Your task to perform on an android device: toggle priority inbox in the gmail app Image 0: 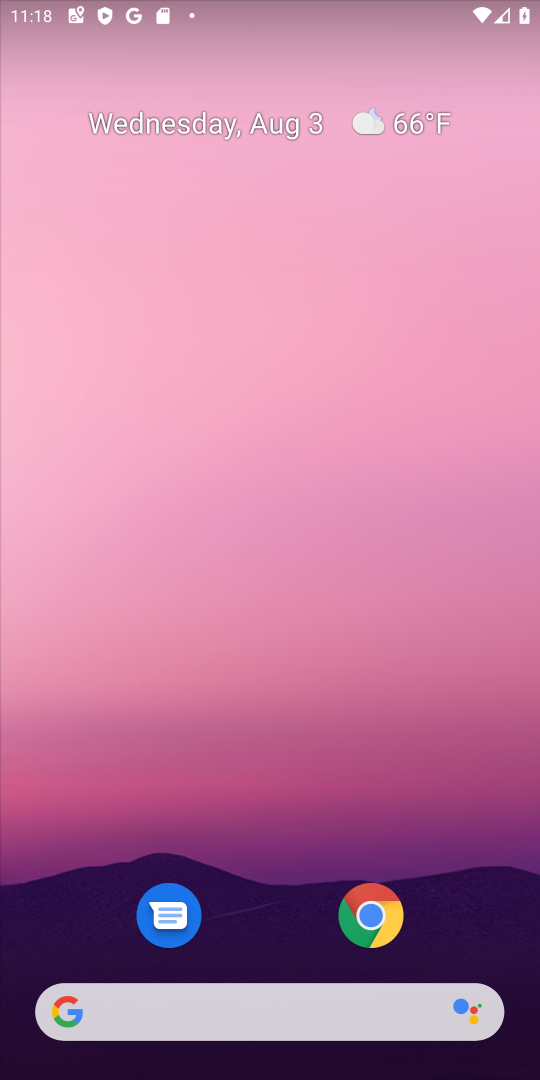
Step 0: press home button
Your task to perform on an android device: toggle priority inbox in the gmail app Image 1: 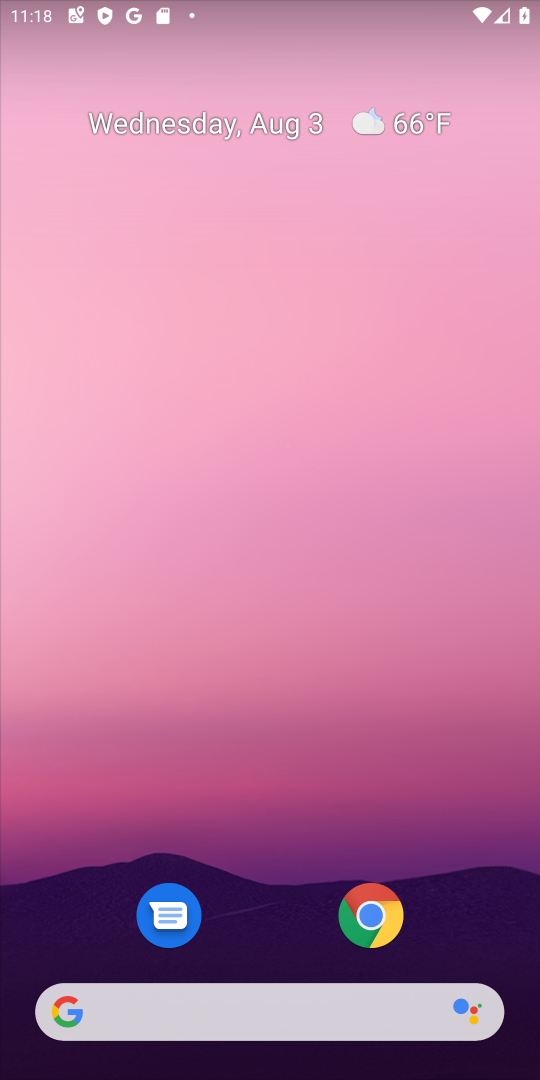
Step 1: drag from (282, 908) to (244, 129)
Your task to perform on an android device: toggle priority inbox in the gmail app Image 2: 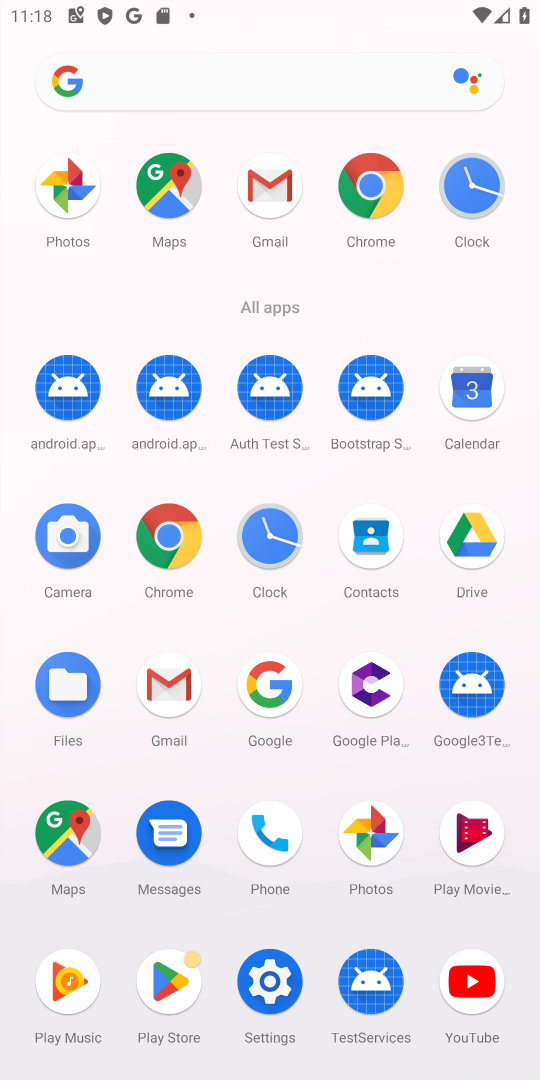
Step 2: click (201, 699)
Your task to perform on an android device: toggle priority inbox in the gmail app Image 3: 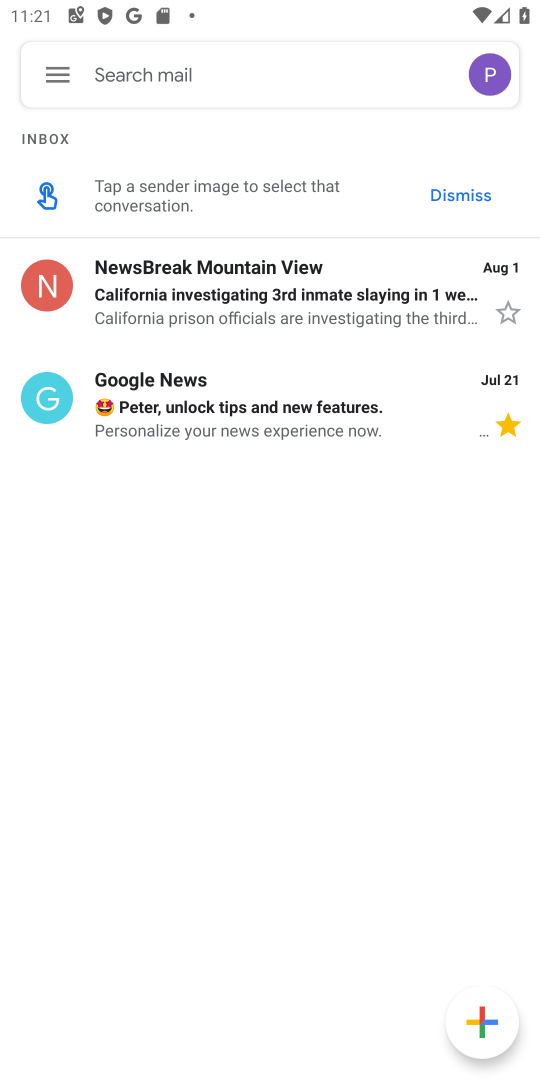
Step 3: click (52, 81)
Your task to perform on an android device: toggle priority inbox in the gmail app Image 4: 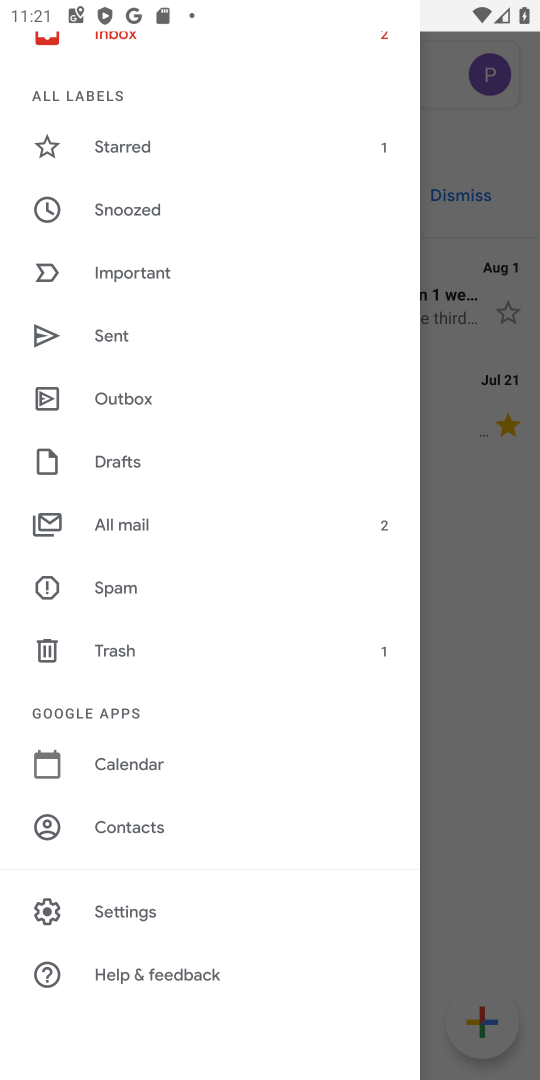
Step 4: click (113, 899)
Your task to perform on an android device: toggle priority inbox in the gmail app Image 5: 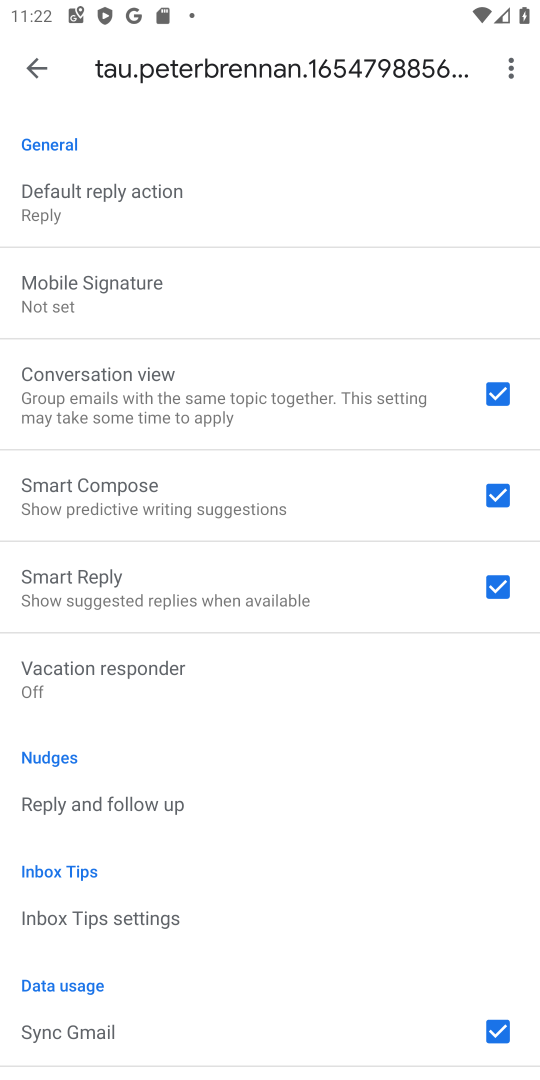
Step 5: drag from (188, 934) to (137, 283)
Your task to perform on an android device: toggle priority inbox in the gmail app Image 6: 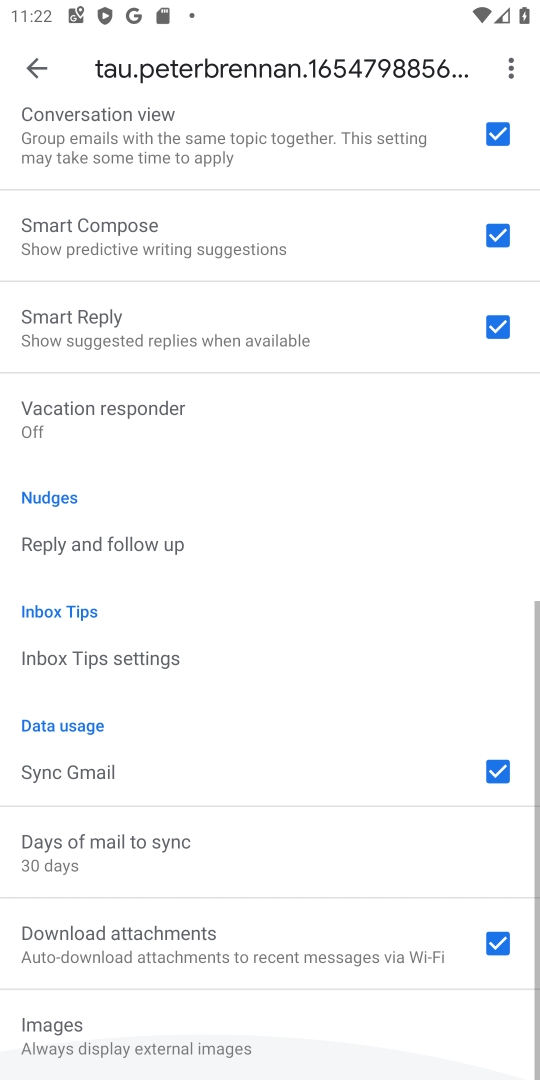
Step 6: drag from (149, 665) to (158, 125)
Your task to perform on an android device: toggle priority inbox in the gmail app Image 7: 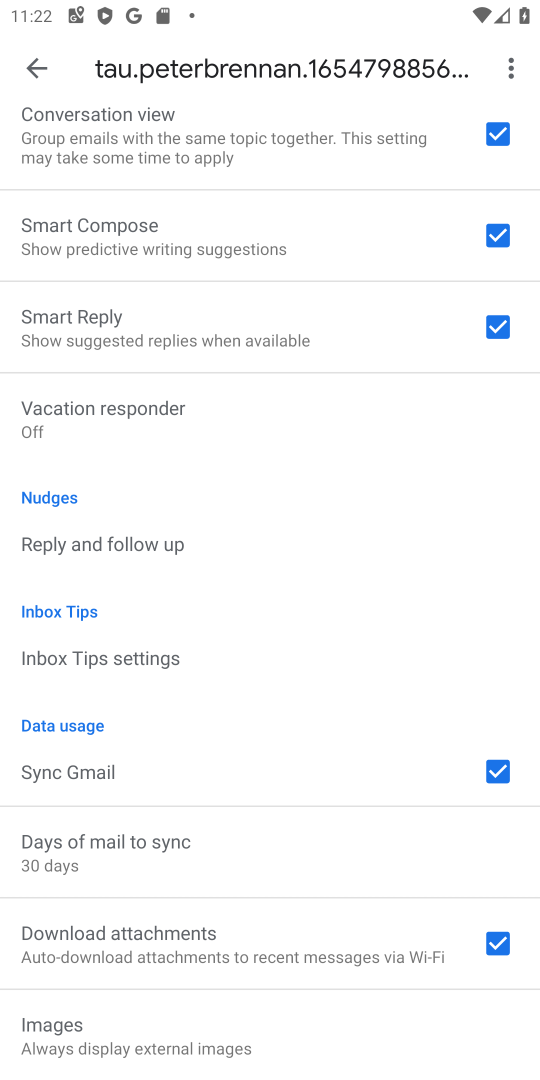
Step 7: drag from (116, 295) to (186, 1065)
Your task to perform on an android device: toggle priority inbox in the gmail app Image 8: 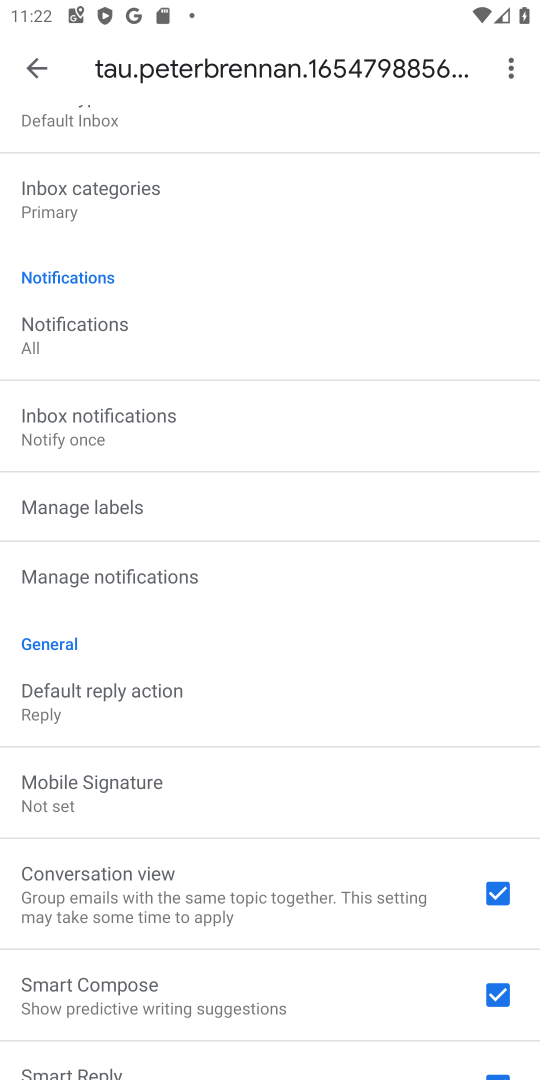
Step 8: drag from (78, 231) to (119, 778)
Your task to perform on an android device: toggle priority inbox in the gmail app Image 9: 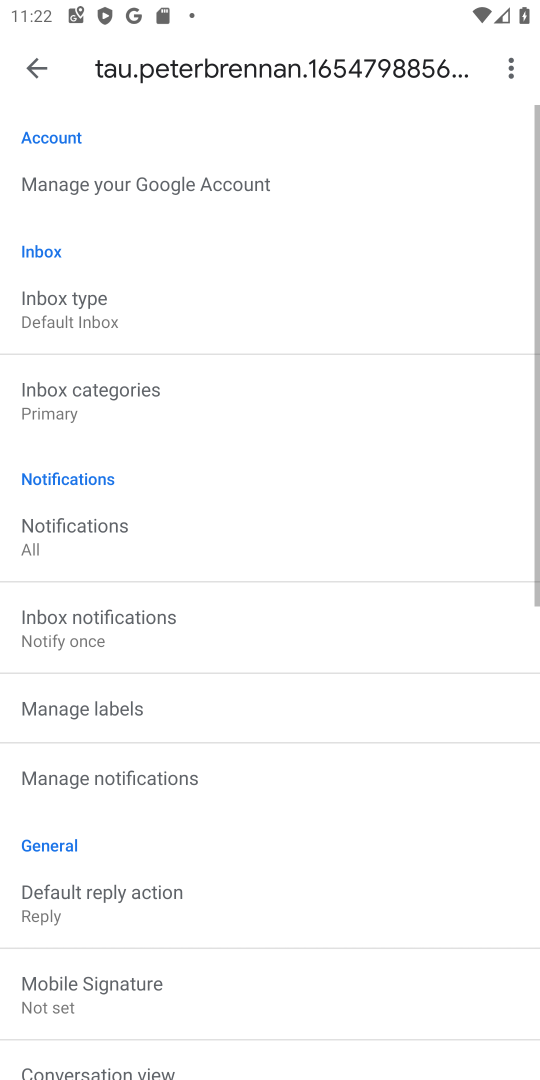
Step 9: click (67, 314)
Your task to perform on an android device: toggle priority inbox in the gmail app Image 10: 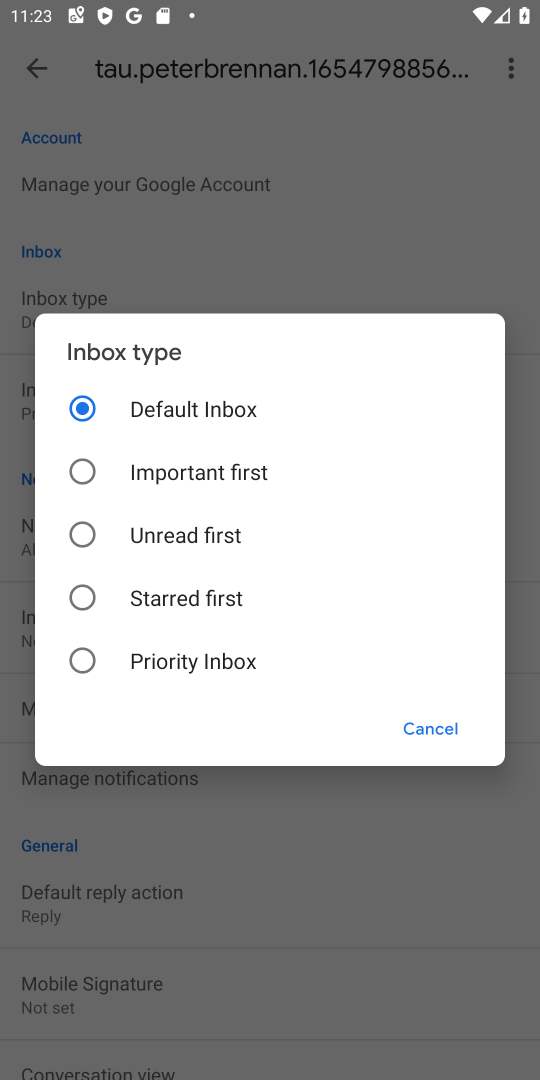
Step 10: click (174, 654)
Your task to perform on an android device: toggle priority inbox in the gmail app Image 11: 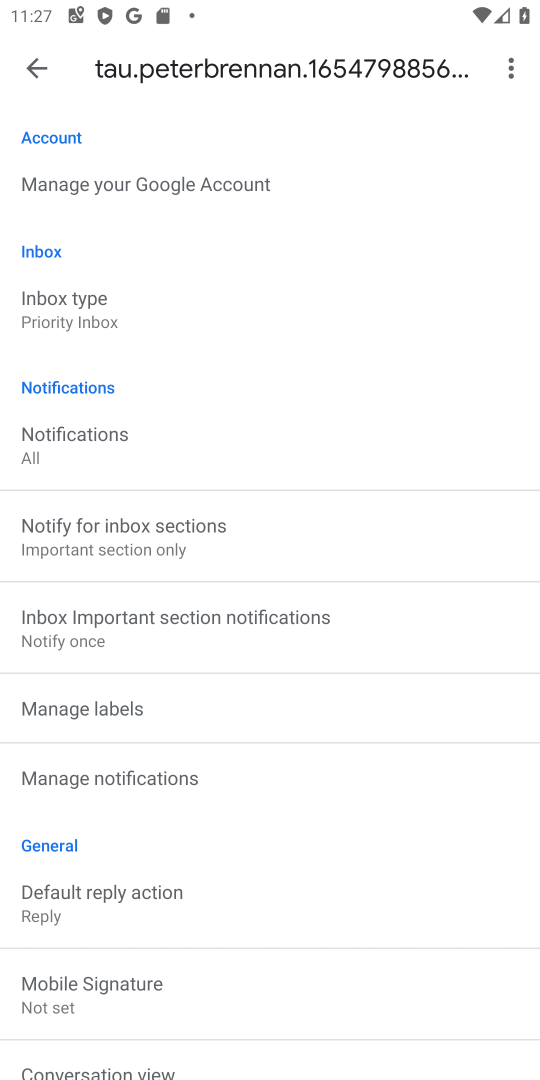
Step 11: click (19, 307)
Your task to perform on an android device: toggle priority inbox in the gmail app Image 12: 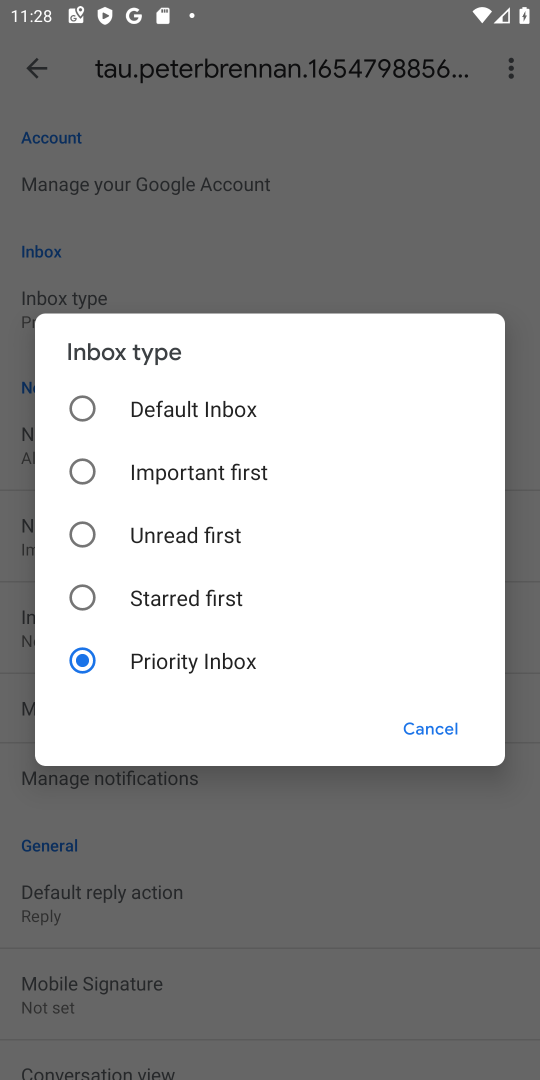
Step 12: click (112, 426)
Your task to perform on an android device: toggle priority inbox in the gmail app Image 13: 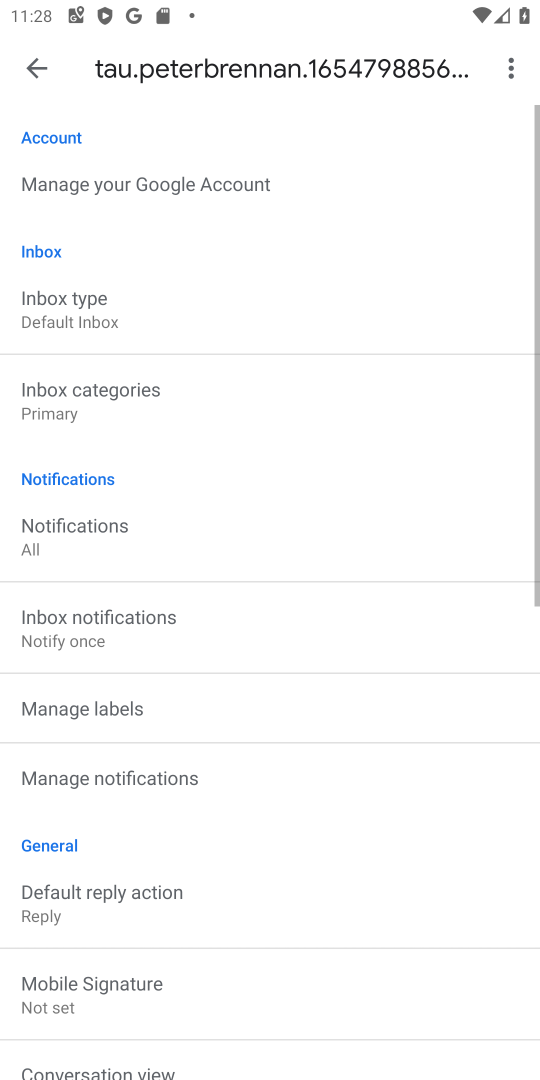
Step 13: task complete